Your task to perform on an android device: open a bookmark in the chrome app Image 0: 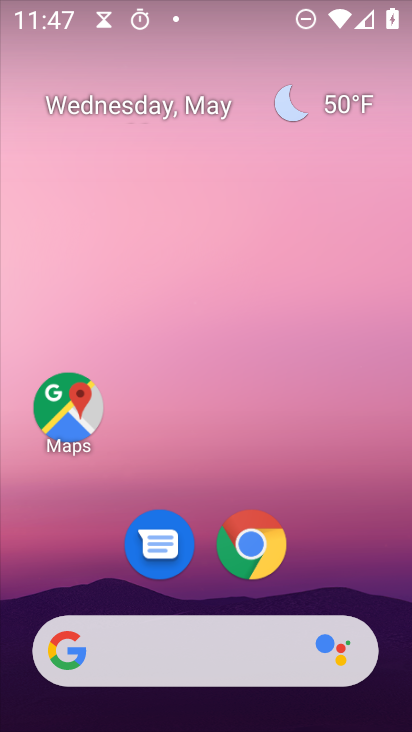
Step 0: click (245, 550)
Your task to perform on an android device: open a bookmark in the chrome app Image 1: 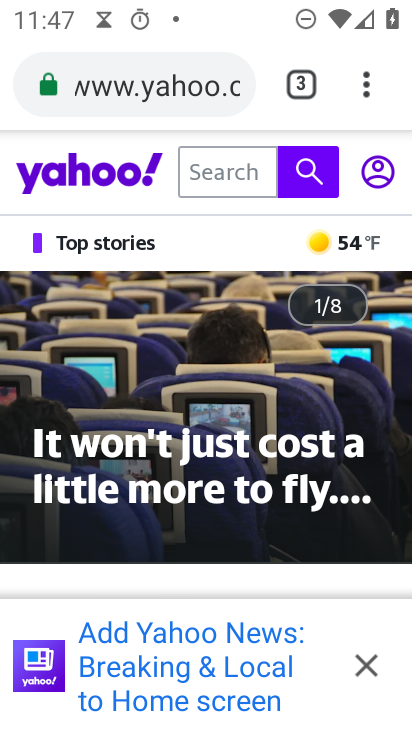
Step 1: click (354, 72)
Your task to perform on an android device: open a bookmark in the chrome app Image 2: 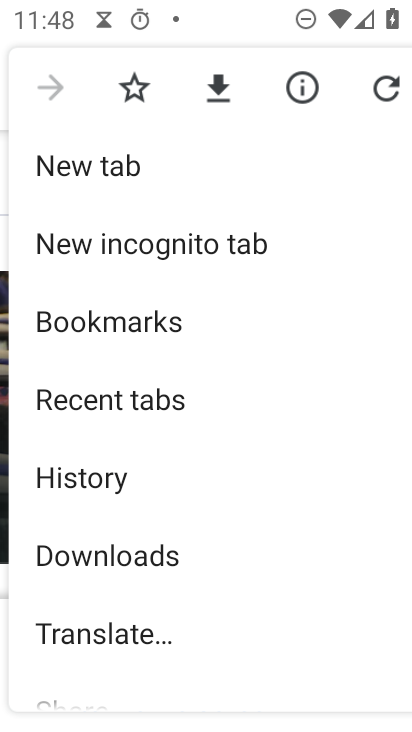
Step 2: click (167, 343)
Your task to perform on an android device: open a bookmark in the chrome app Image 3: 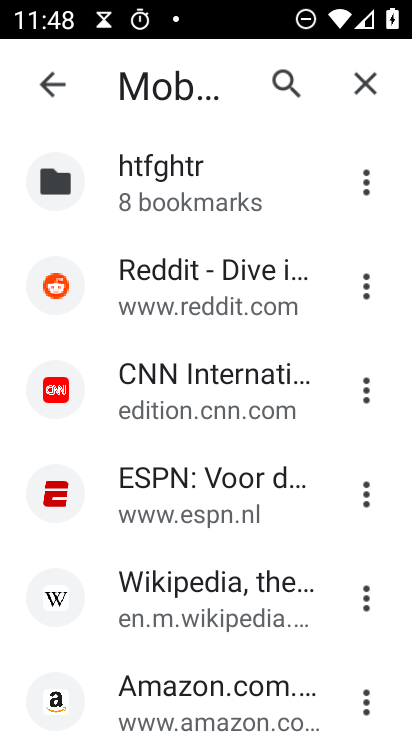
Step 3: click (236, 301)
Your task to perform on an android device: open a bookmark in the chrome app Image 4: 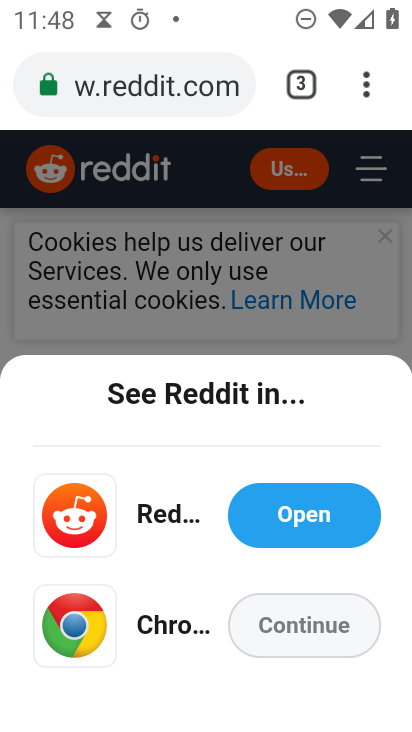
Step 4: task complete